Your task to perform on an android device: Open Google Maps Image 0: 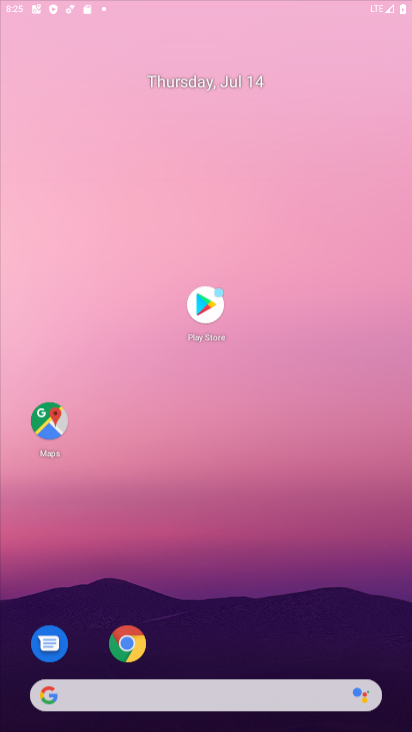
Step 0: press home button
Your task to perform on an android device: Open Google Maps Image 1: 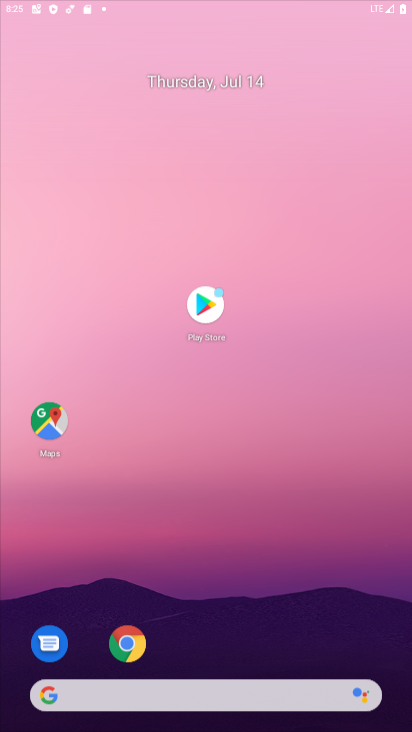
Step 1: click (188, 121)
Your task to perform on an android device: Open Google Maps Image 2: 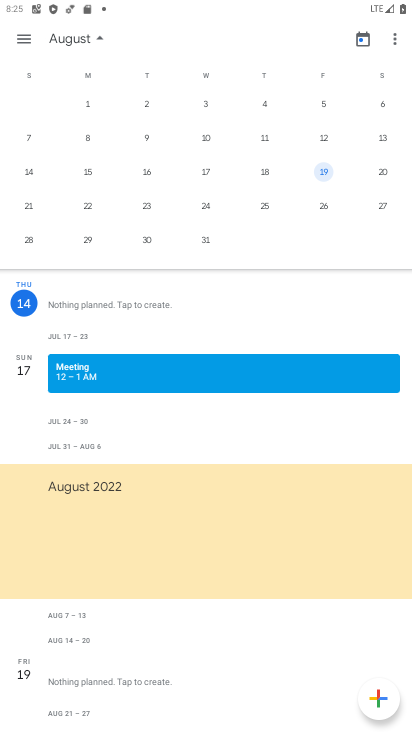
Step 2: press home button
Your task to perform on an android device: Open Google Maps Image 3: 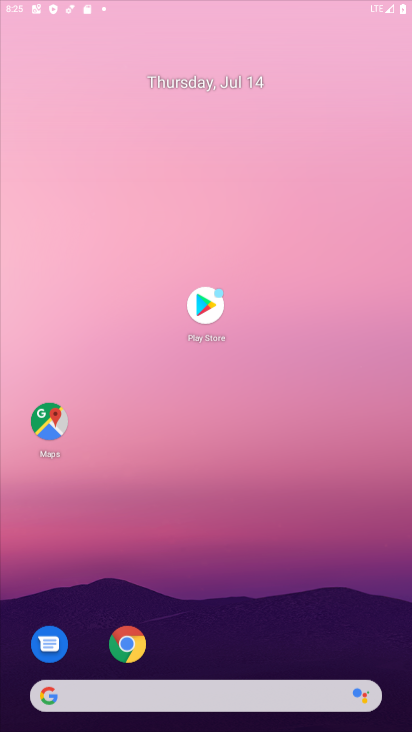
Step 3: drag from (206, 668) to (313, 52)
Your task to perform on an android device: Open Google Maps Image 4: 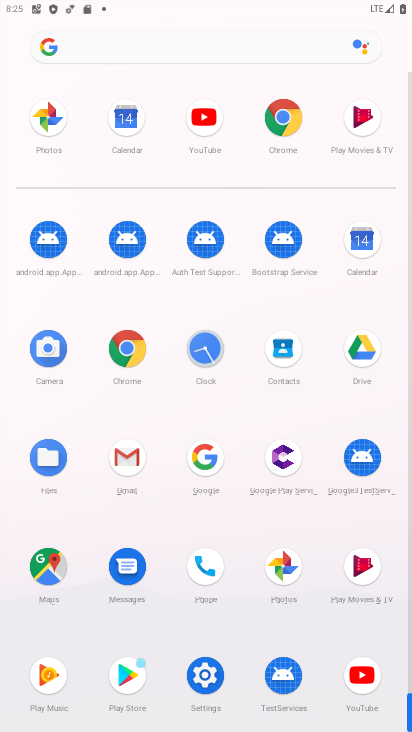
Step 4: click (48, 562)
Your task to perform on an android device: Open Google Maps Image 5: 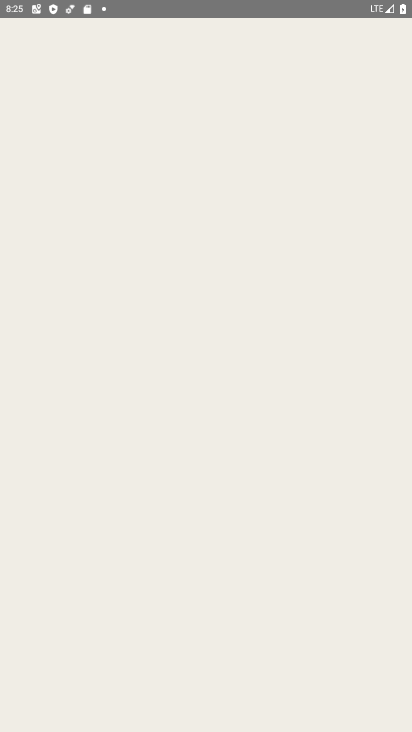
Step 5: drag from (218, 547) to (261, 190)
Your task to perform on an android device: Open Google Maps Image 6: 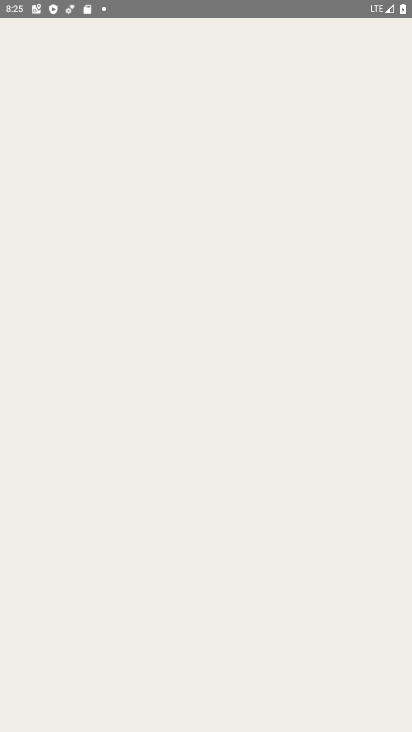
Step 6: drag from (279, 105) to (222, 467)
Your task to perform on an android device: Open Google Maps Image 7: 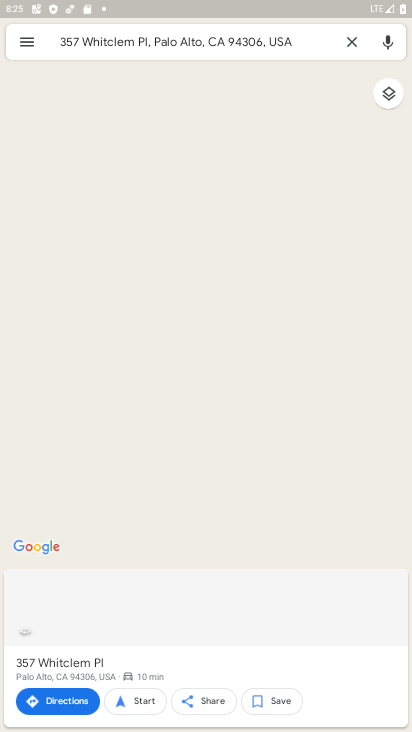
Step 7: click (351, 40)
Your task to perform on an android device: Open Google Maps Image 8: 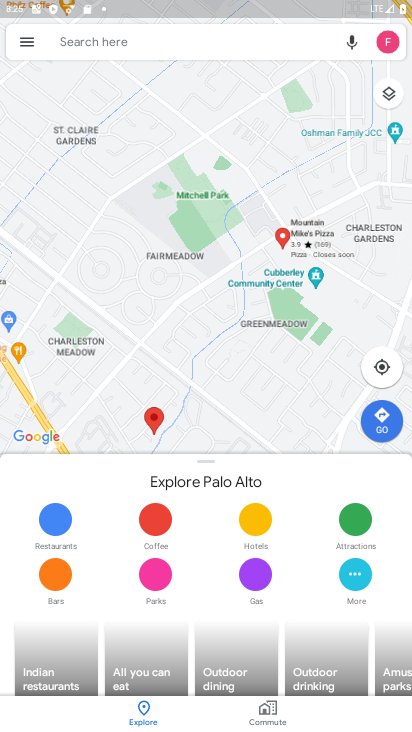
Step 8: task complete